Your task to perform on an android device: open wifi settings Image 0: 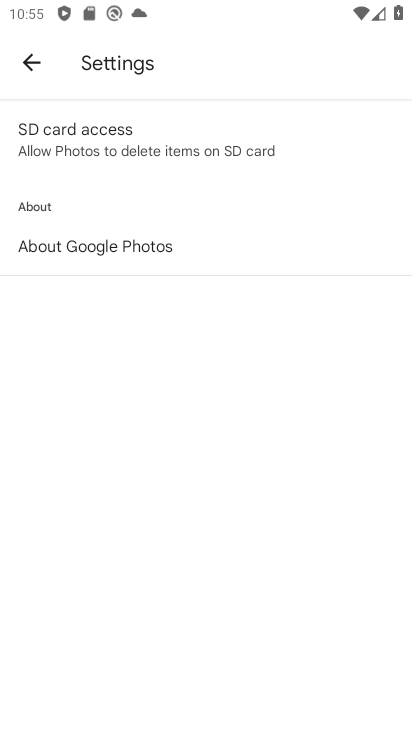
Step 0: press home button
Your task to perform on an android device: open wifi settings Image 1: 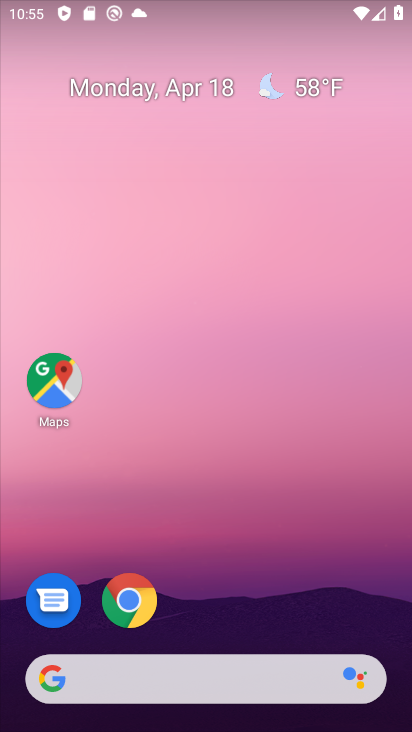
Step 1: drag from (194, 530) to (156, 0)
Your task to perform on an android device: open wifi settings Image 2: 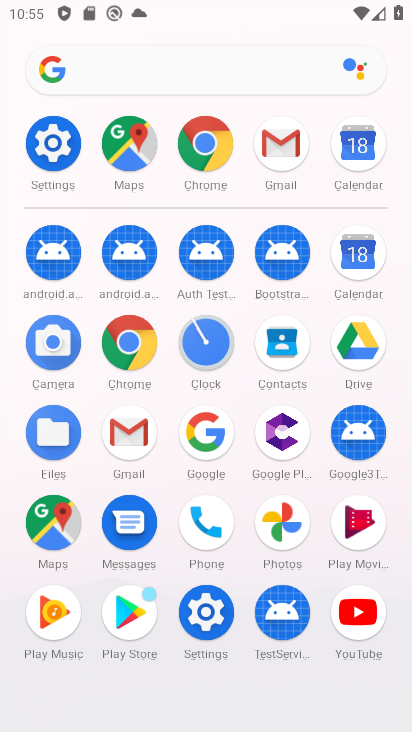
Step 2: click (55, 144)
Your task to perform on an android device: open wifi settings Image 3: 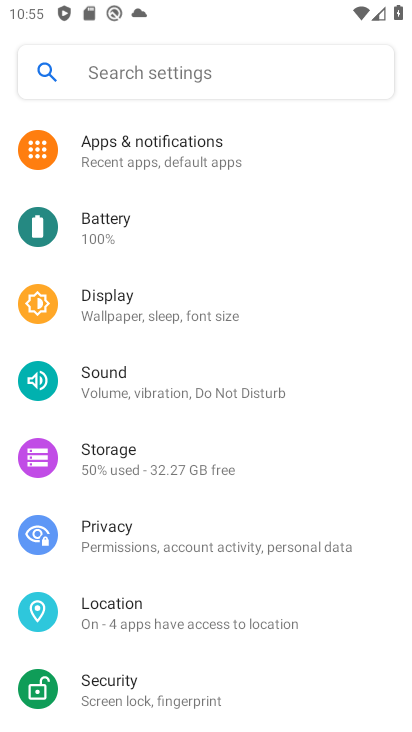
Step 3: drag from (192, 187) to (229, 641)
Your task to perform on an android device: open wifi settings Image 4: 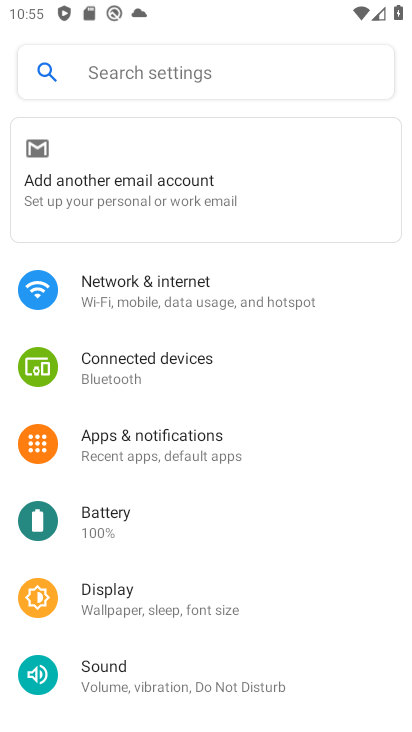
Step 4: click (154, 280)
Your task to perform on an android device: open wifi settings Image 5: 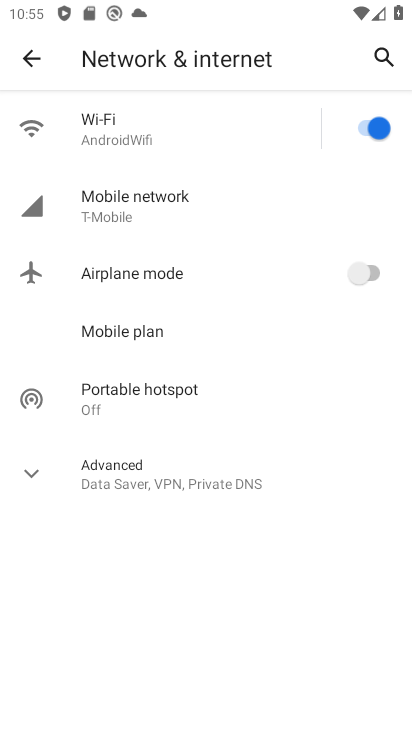
Step 5: click (104, 124)
Your task to perform on an android device: open wifi settings Image 6: 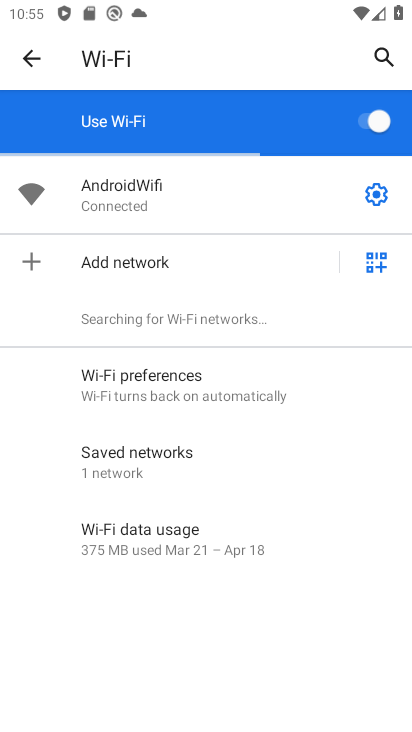
Step 6: task complete